Your task to perform on an android device: Open Amazon Image 0: 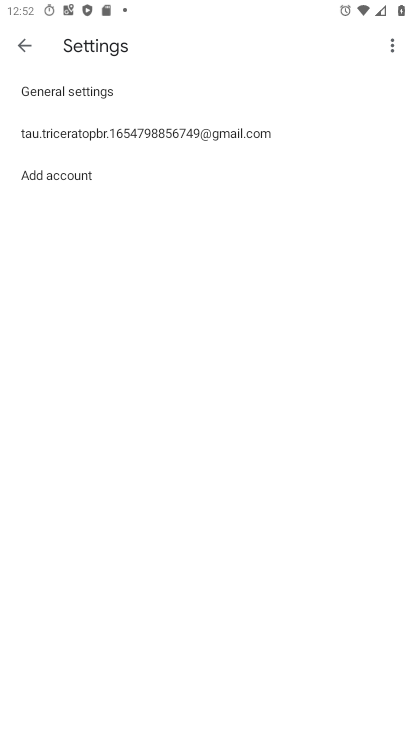
Step 0: press home button
Your task to perform on an android device: Open Amazon Image 1: 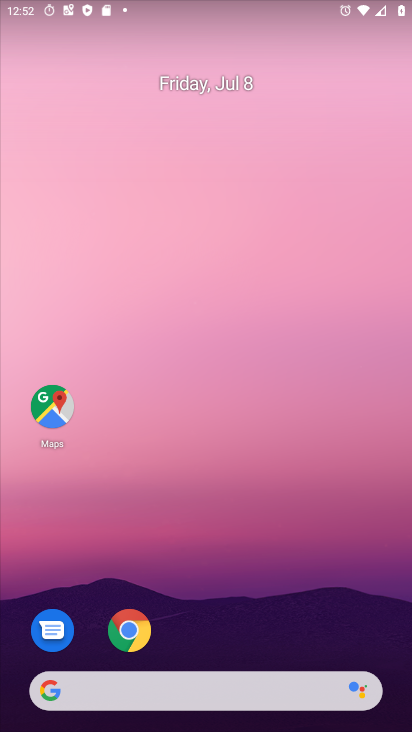
Step 1: click (144, 636)
Your task to perform on an android device: Open Amazon Image 2: 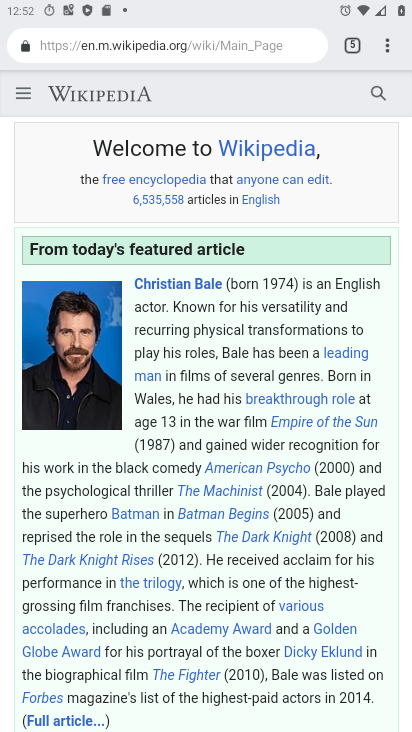
Step 2: click (350, 44)
Your task to perform on an android device: Open Amazon Image 3: 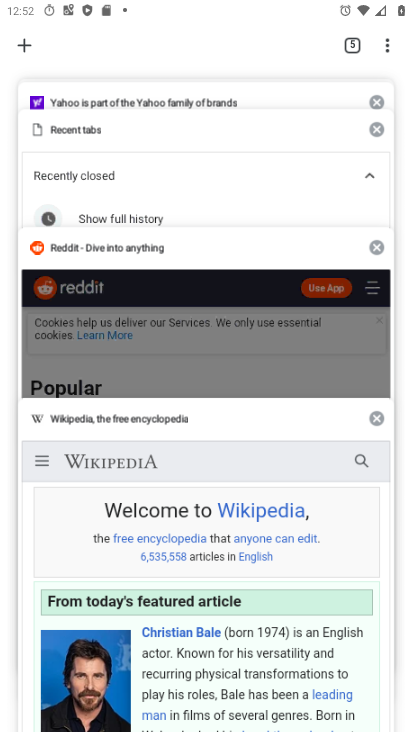
Step 3: click (23, 41)
Your task to perform on an android device: Open Amazon Image 4: 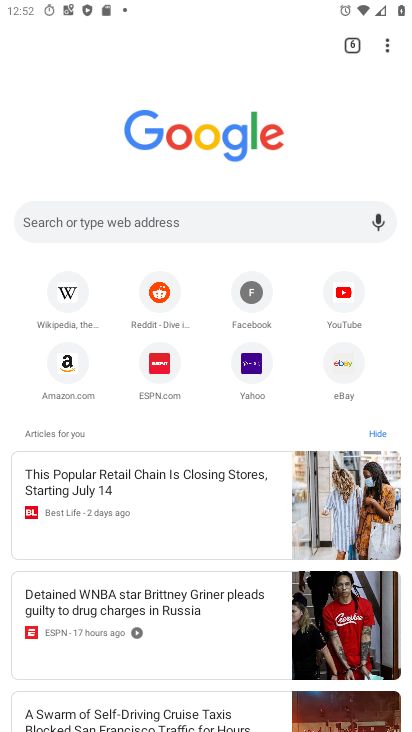
Step 4: click (77, 378)
Your task to perform on an android device: Open Amazon Image 5: 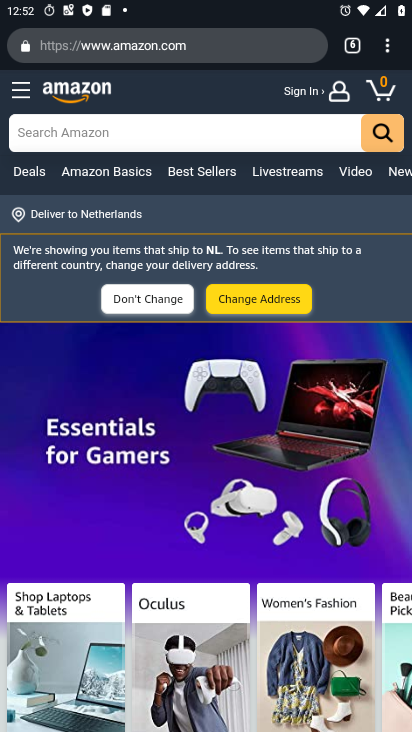
Step 5: task complete